Your task to perform on an android device: Turn on the flashlight Image 0: 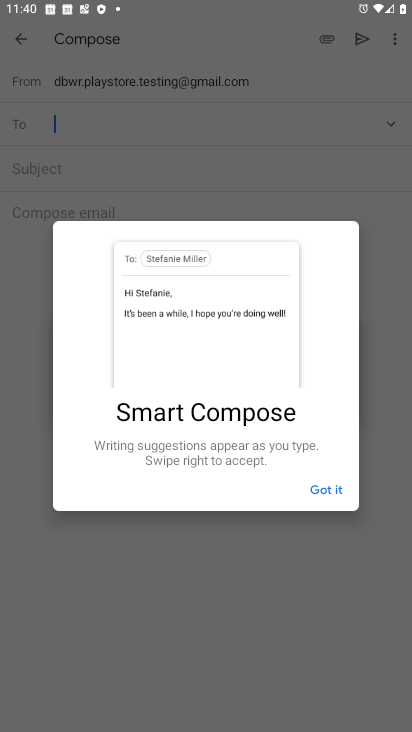
Step 0: press home button
Your task to perform on an android device: Turn on the flashlight Image 1: 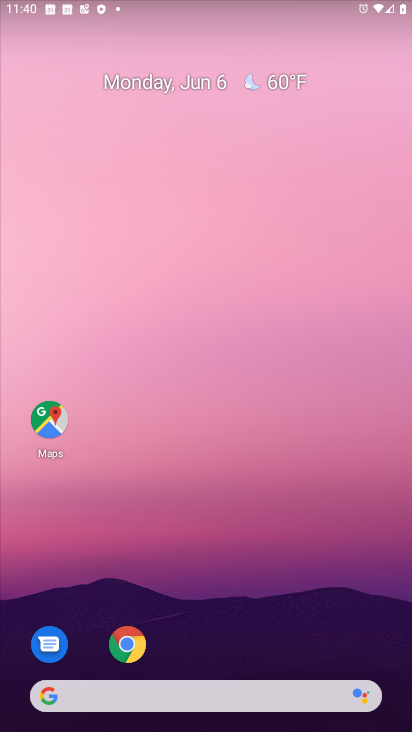
Step 1: drag from (187, 10) to (153, 566)
Your task to perform on an android device: Turn on the flashlight Image 2: 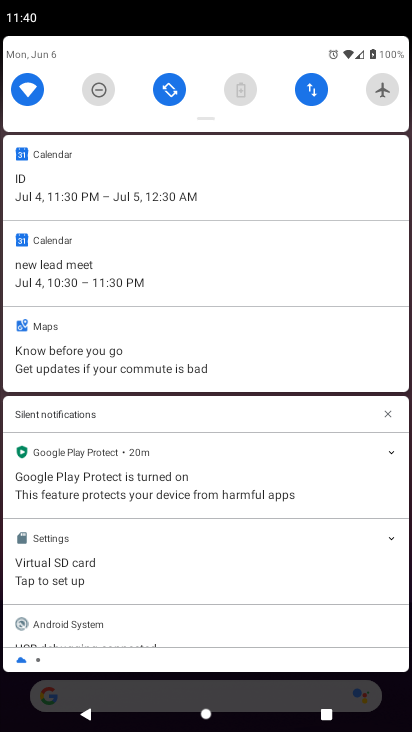
Step 2: drag from (196, 123) to (230, 650)
Your task to perform on an android device: Turn on the flashlight Image 3: 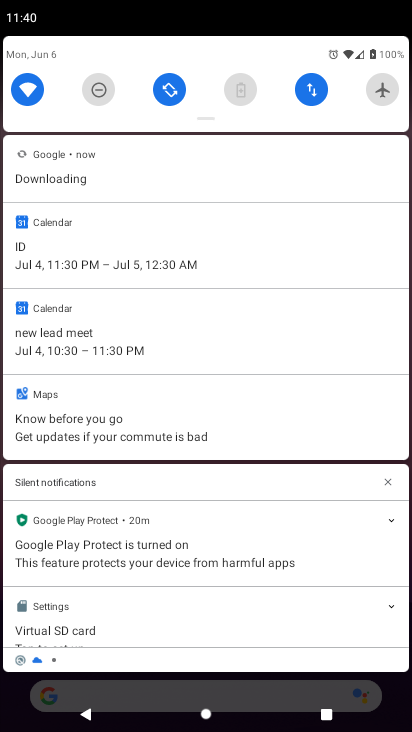
Step 3: drag from (203, 117) to (202, 489)
Your task to perform on an android device: Turn on the flashlight Image 4: 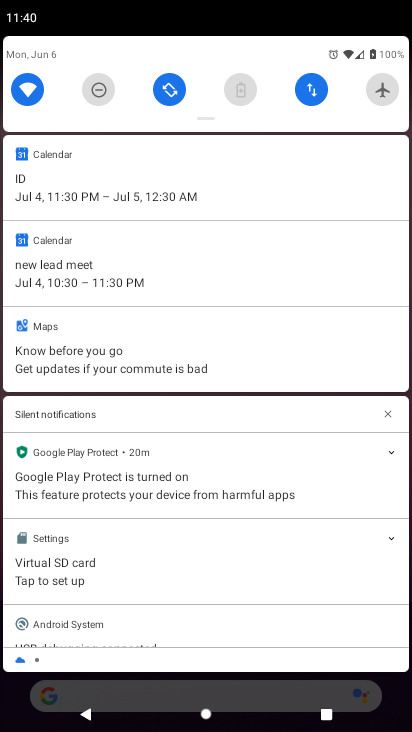
Step 4: drag from (211, 119) to (157, 650)
Your task to perform on an android device: Turn on the flashlight Image 5: 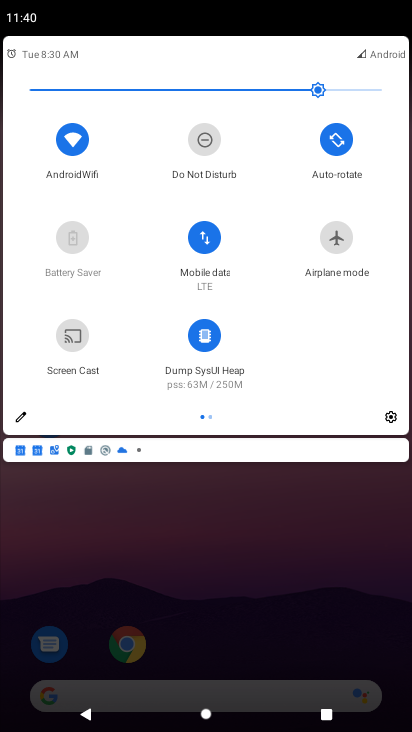
Step 5: click (23, 418)
Your task to perform on an android device: Turn on the flashlight Image 6: 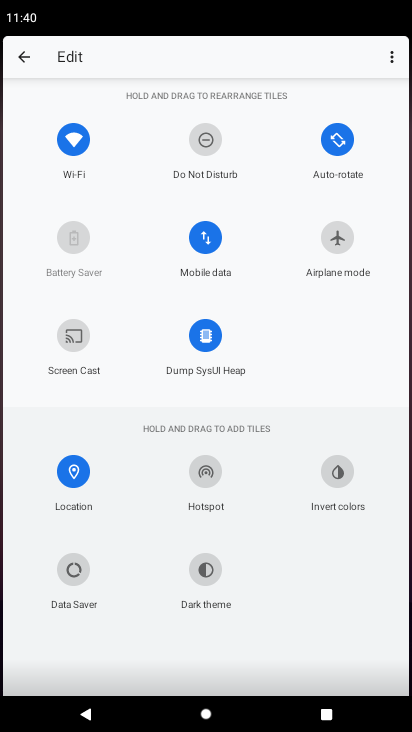
Step 6: task complete